Your task to perform on an android device: Open my contact list Image 0: 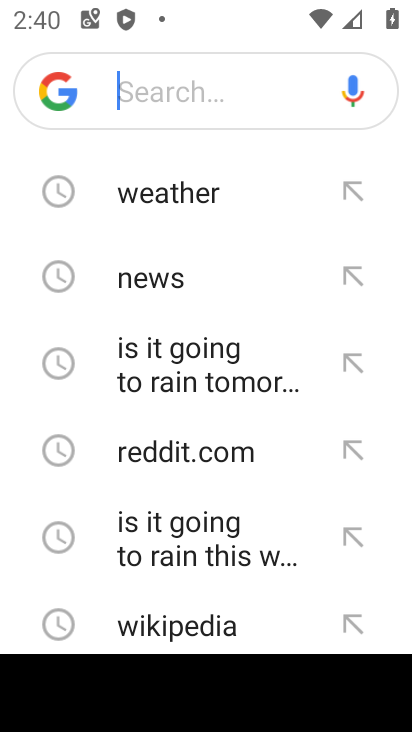
Step 0: press back button
Your task to perform on an android device: Open my contact list Image 1: 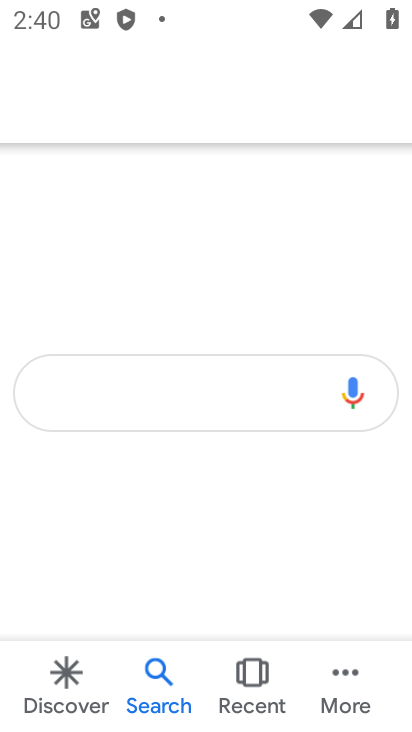
Step 1: press back button
Your task to perform on an android device: Open my contact list Image 2: 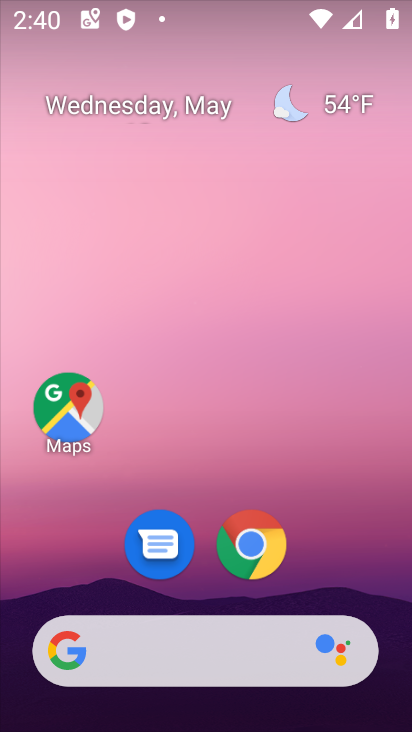
Step 2: drag from (366, 555) to (233, 76)
Your task to perform on an android device: Open my contact list Image 3: 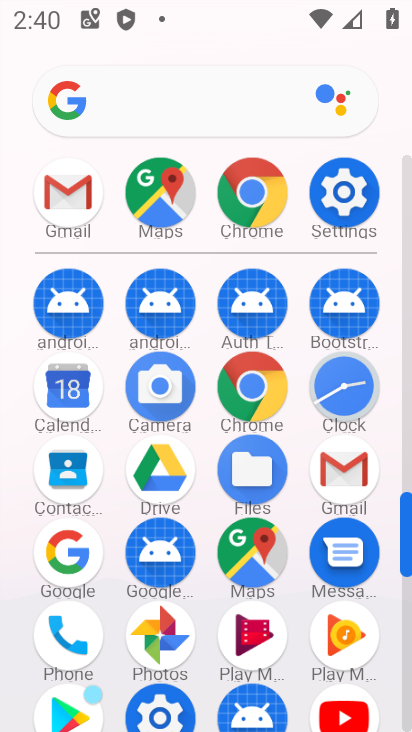
Step 3: click (65, 469)
Your task to perform on an android device: Open my contact list Image 4: 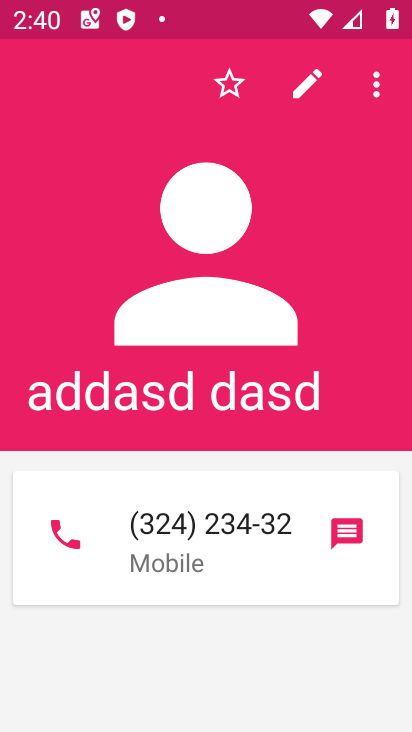
Step 4: task complete